Your task to perform on an android device: Go to network settings Image 0: 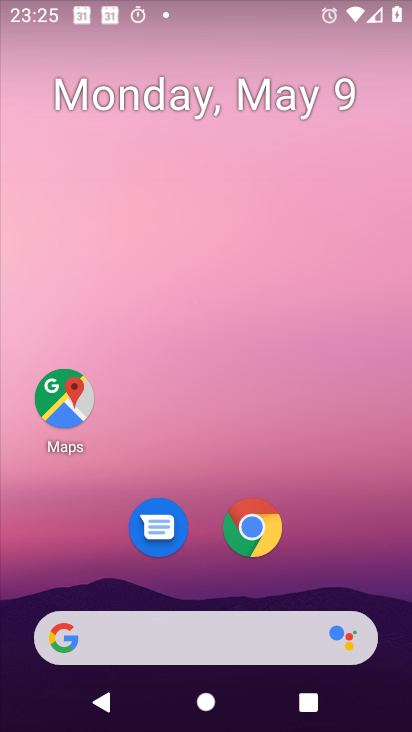
Step 0: drag from (209, 577) to (224, 70)
Your task to perform on an android device: Go to network settings Image 1: 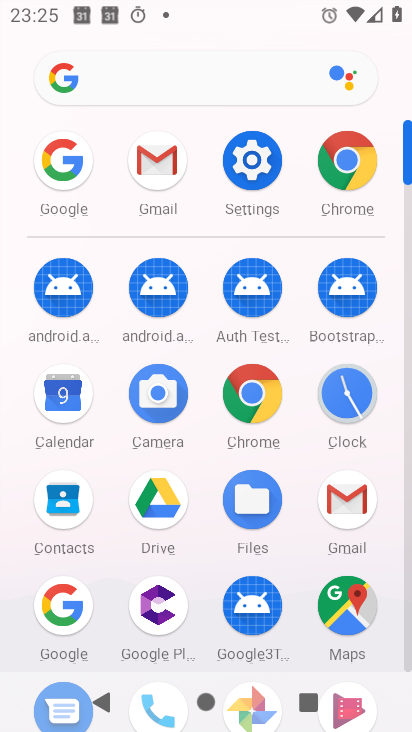
Step 1: click (242, 172)
Your task to perform on an android device: Go to network settings Image 2: 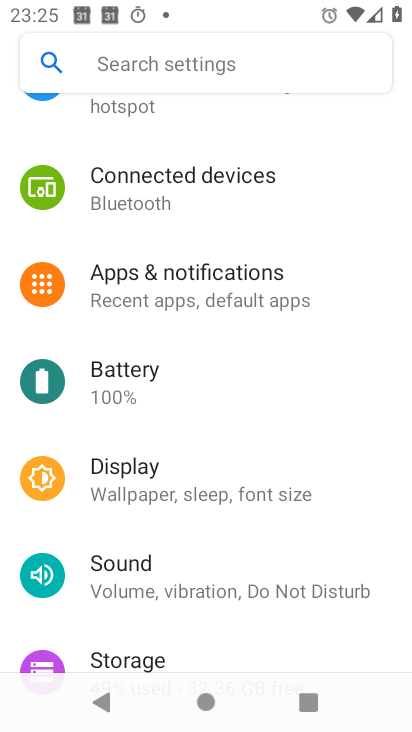
Step 2: drag from (184, 151) to (185, 727)
Your task to perform on an android device: Go to network settings Image 3: 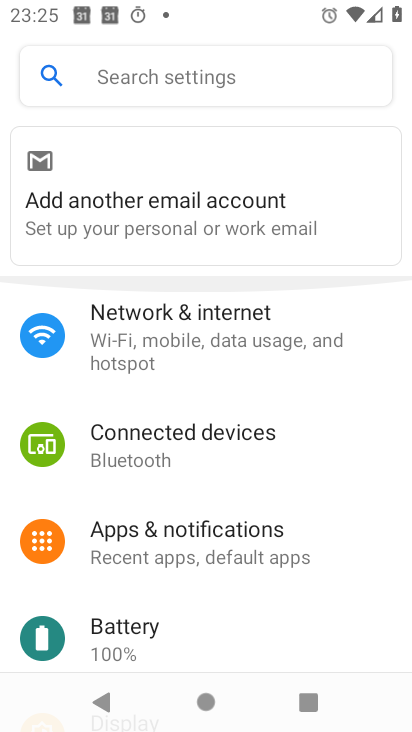
Step 3: click (156, 350)
Your task to perform on an android device: Go to network settings Image 4: 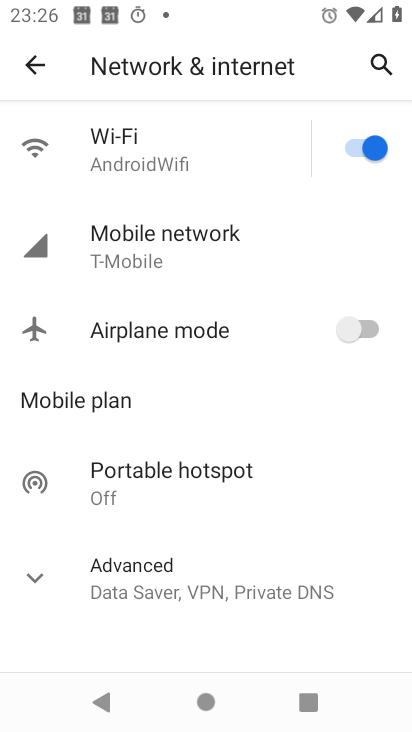
Step 4: click (168, 252)
Your task to perform on an android device: Go to network settings Image 5: 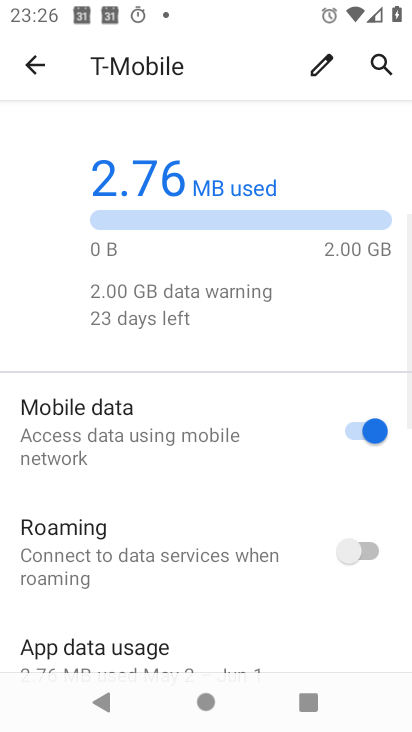
Step 5: task complete